Your task to perform on an android device: add a label to a message in the gmail app Image 0: 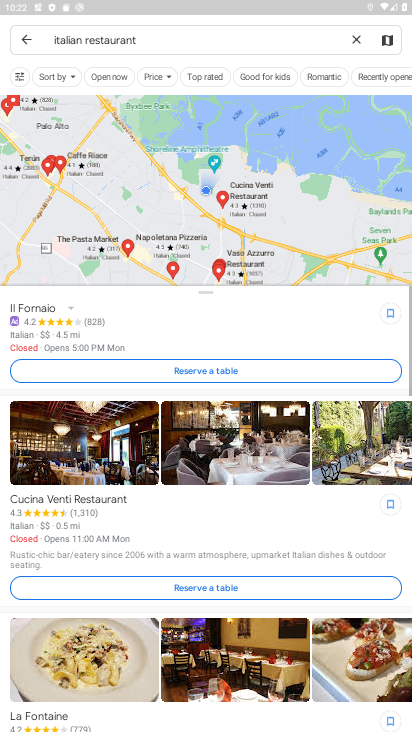
Step 0: click (145, 640)
Your task to perform on an android device: add a label to a message in the gmail app Image 1: 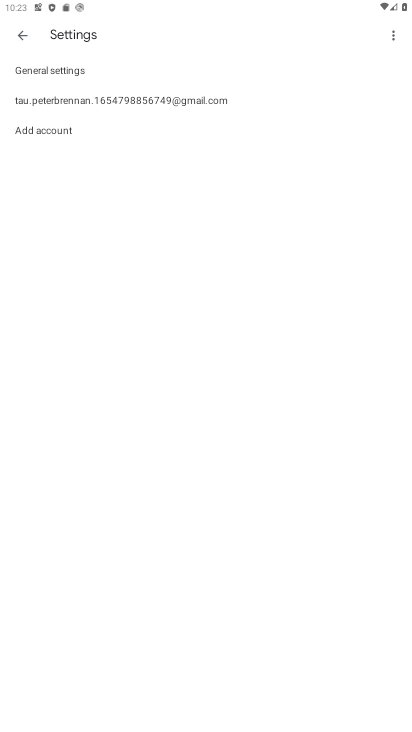
Step 1: press home button
Your task to perform on an android device: add a label to a message in the gmail app Image 2: 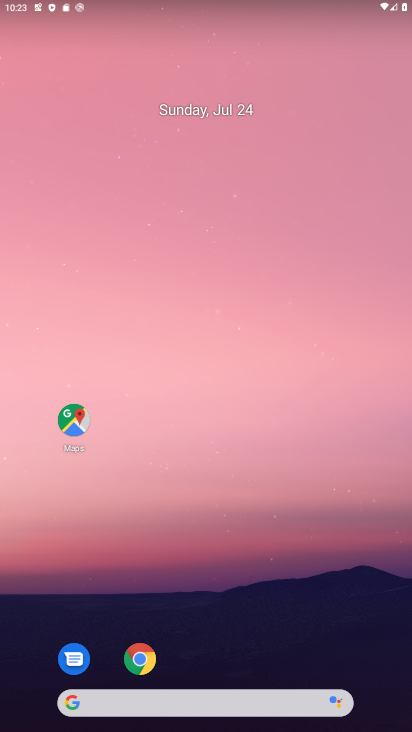
Step 2: drag from (387, 649) to (289, 13)
Your task to perform on an android device: add a label to a message in the gmail app Image 3: 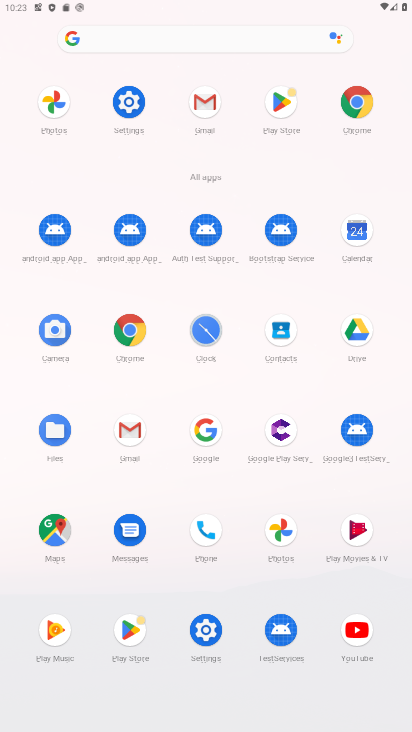
Step 3: click (117, 429)
Your task to perform on an android device: add a label to a message in the gmail app Image 4: 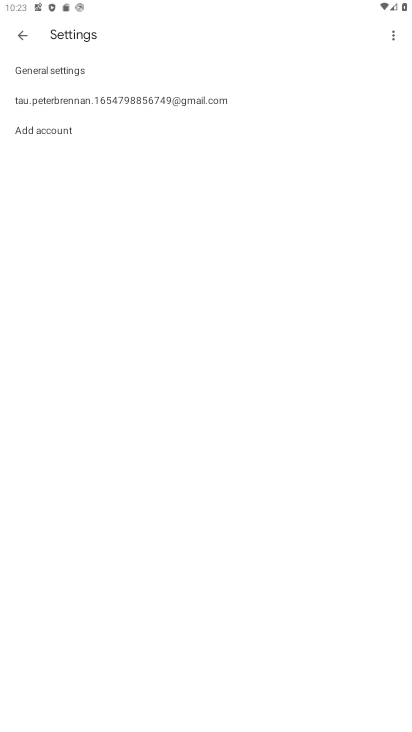
Step 4: click (97, 103)
Your task to perform on an android device: add a label to a message in the gmail app Image 5: 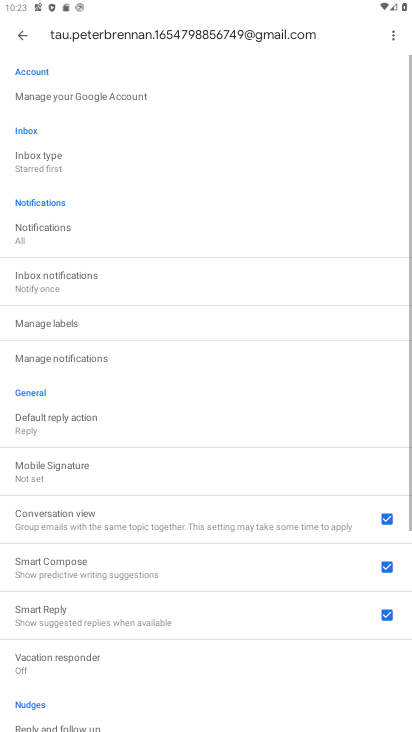
Step 5: click (18, 35)
Your task to perform on an android device: add a label to a message in the gmail app Image 6: 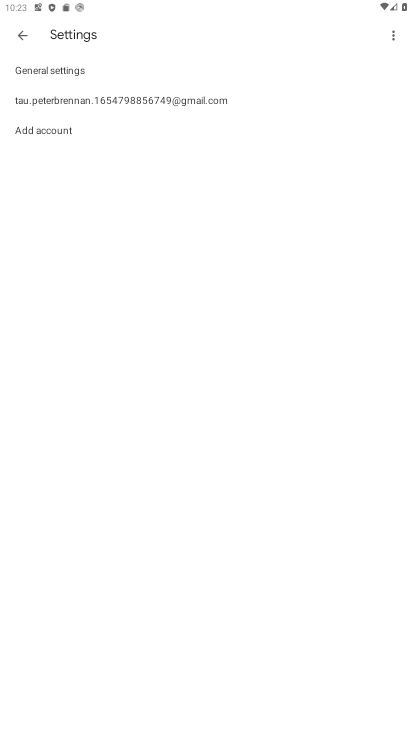
Step 6: click (18, 35)
Your task to perform on an android device: add a label to a message in the gmail app Image 7: 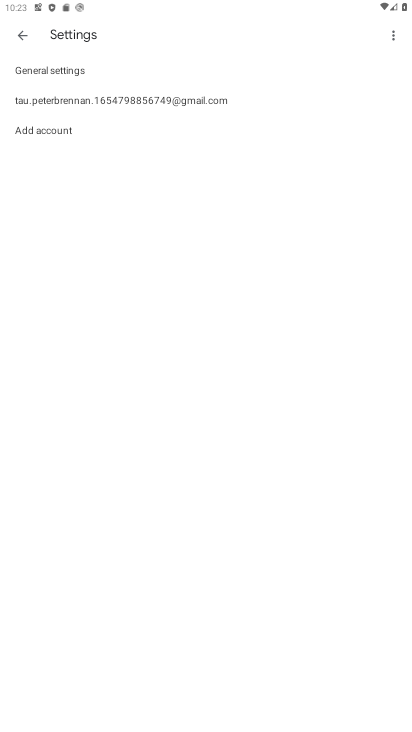
Step 7: click (18, 35)
Your task to perform on an android device: add a label to a message in the gmail app Image 8: 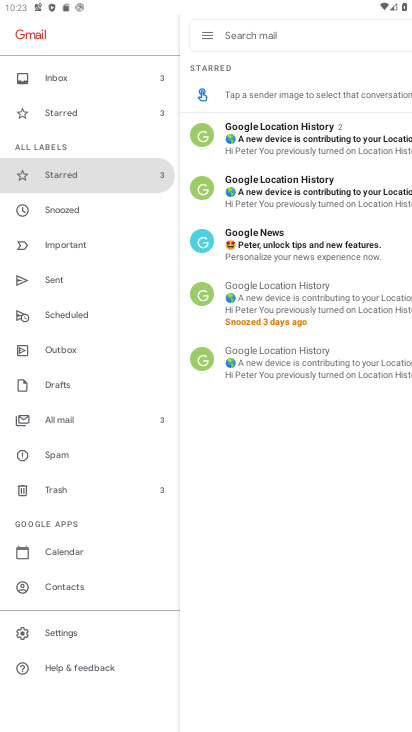
Step 8: drag from (372, 259) to (194, 283)
Your task to perform on an android device: add a label to a message in the gmail app Image 9: 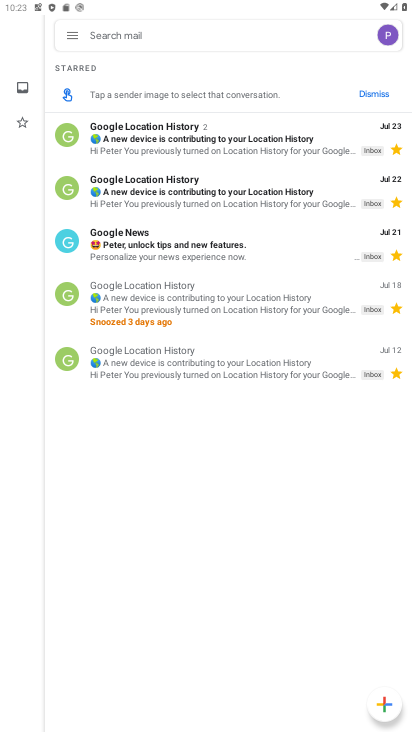
Step 9: click (267, 137)
Your task to perform on an android device: add a label to a message in the gmail app Image 10: 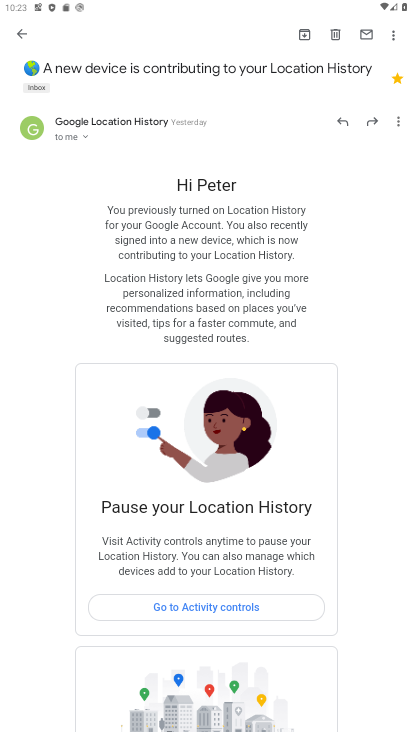
Step 10: click (400, 78)
Your task to perform on an android device: add a label to a message in the gmail app Image 11: 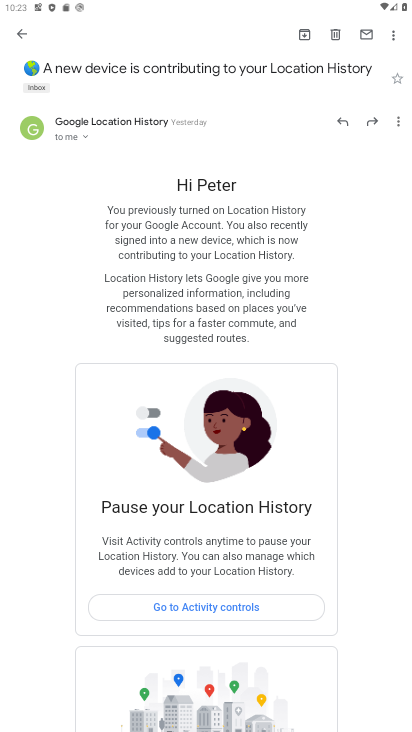
Step 11: click (402, 123)
Your task to perform on an android device: add a label to a message in the gmail app Image 12: 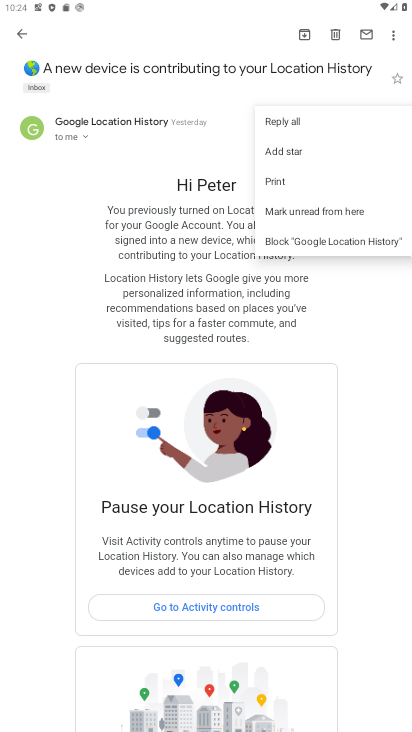
Step 12: task complete